Your task to perform on an android device: Go to internet settings Image 0: 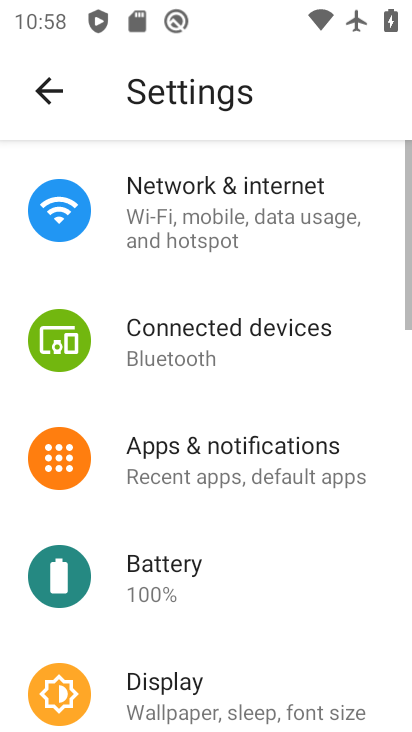
Step 0: press home button
Your task to perform on an android device: Go to internet settings Image 1: 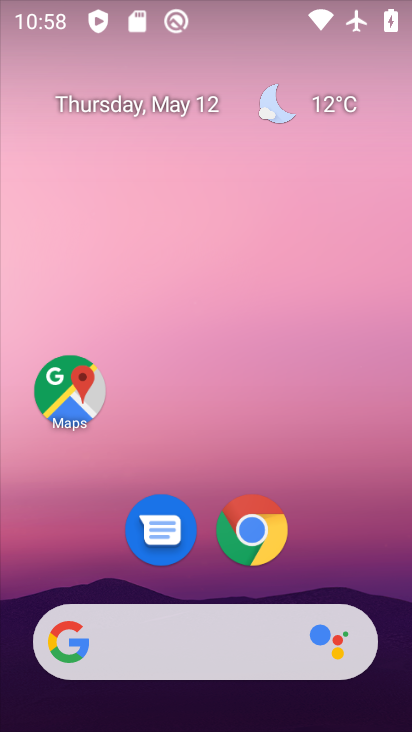
Step 1: drag from (167, 657) to (349, 60)
Your task to perform on an android device: Go to internet settings Image 2: 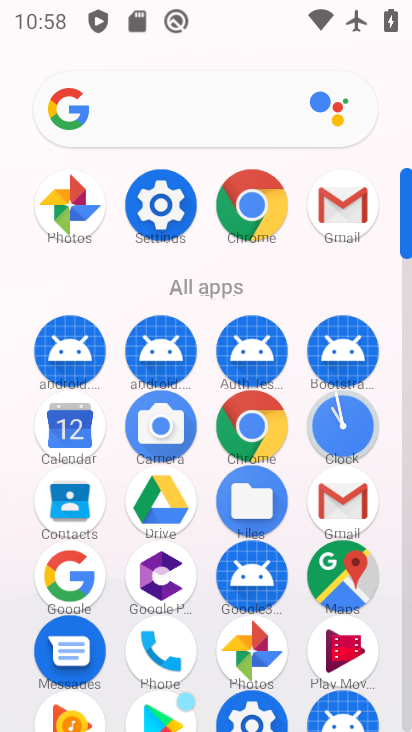
Step 2: click (165, 211)
Your task to perform on an android device: Go to internet settings Image 3: 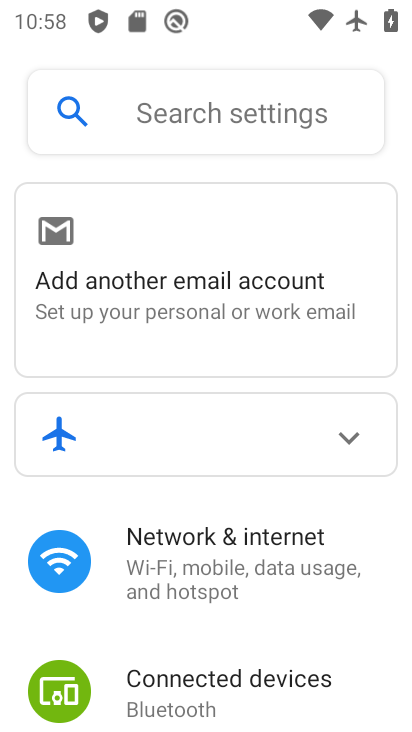
Step 3: click (246, 531)
Your task to perform on an android device: Go to internet settings Image 4: 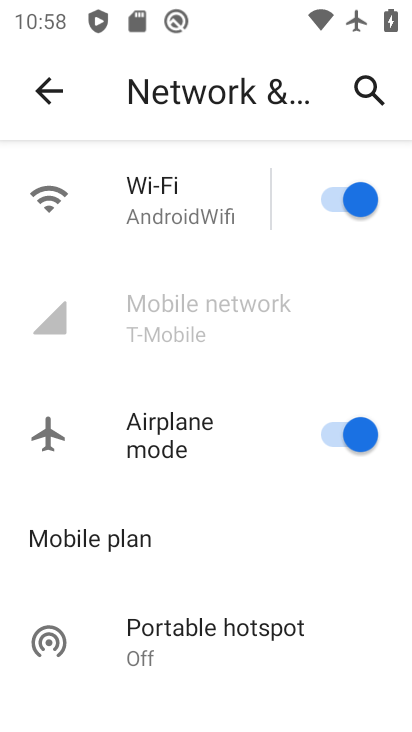
Step 4: task complete